Your task to perform on an android device: See recent photos Image 0: 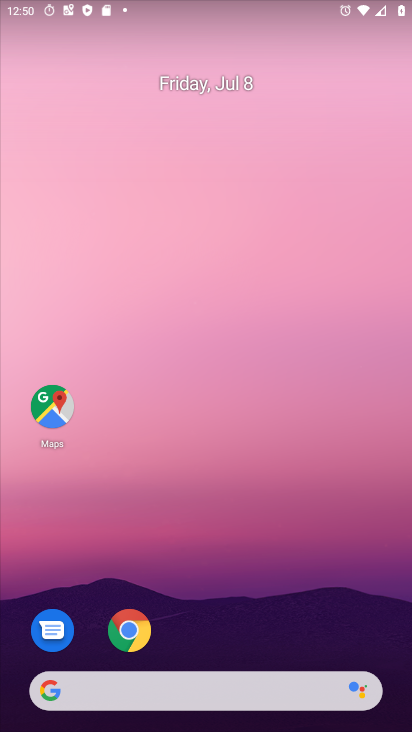
Step 0: drag from (213, 637) to (178, 137)
Your task to perform on an android device: See recent photos Image 1: 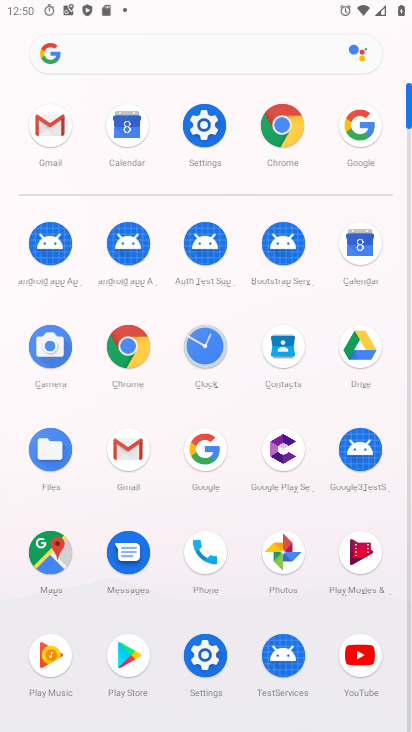
Step 1: click (287, 548)
Your task to perform on an android device: See recent photos Image 2: 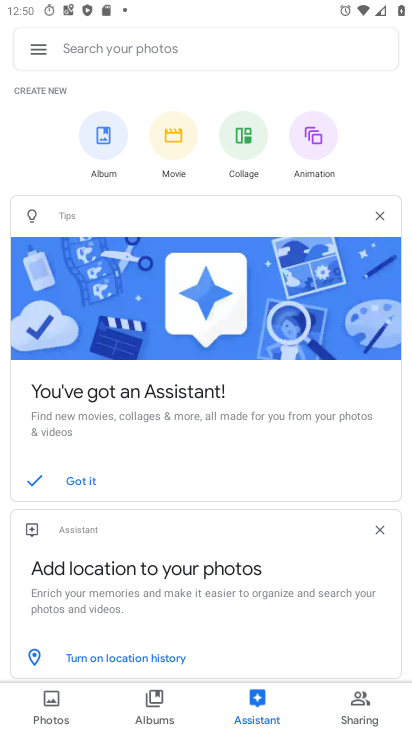
Step 2: click (48, 683)
Your task to perform on an android device: See recent photos Image 3: 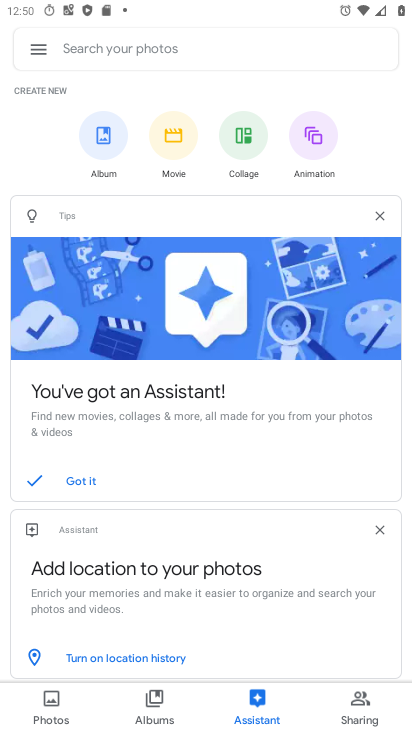
Step 3: click (55, 702)
Your task to perform on an android device: See recent photos Image 4: 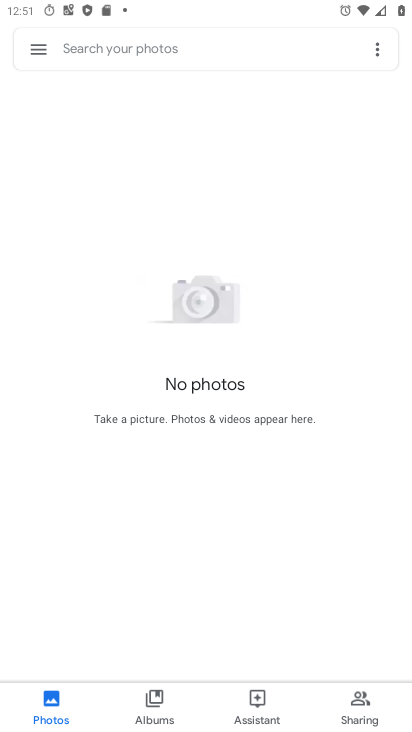
Step 4: task complete